Your task to perform on an android device: turn smart compose on in the gmail app Image 0: 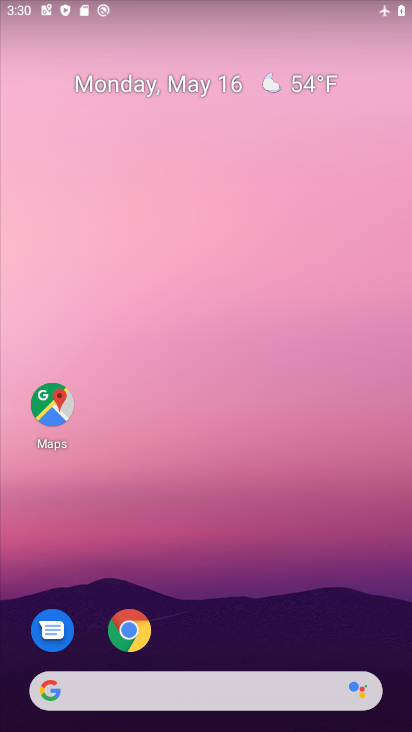
Step 0: drag from (222, 639) to (239, 156)
Your task to perform on an android device: turn smart compose on in the gmail app Image 1: 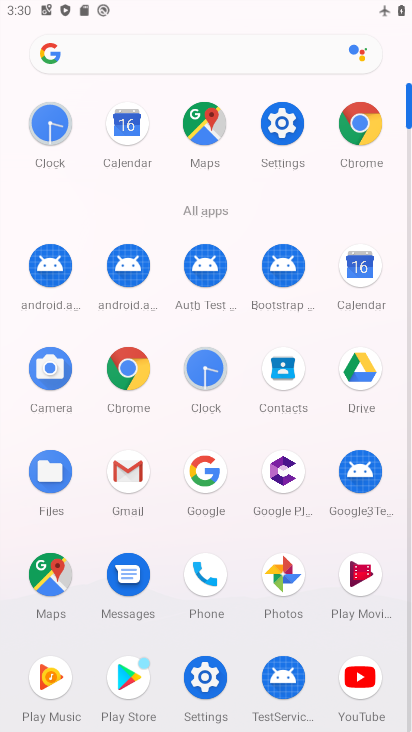
Step 1: click (131, 477)
Your task to perform on an android device: turn smart compose on in the gmail app Image 2: 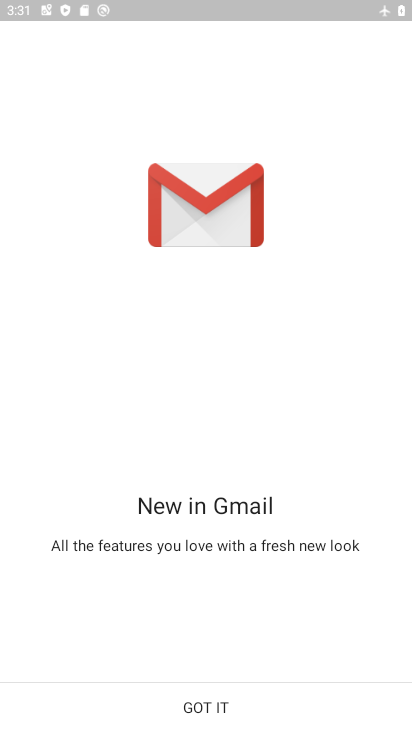
Step 2: click (199, 704)
Your task to perform on an android device: turn smart compose on in the gmail app Image 3: 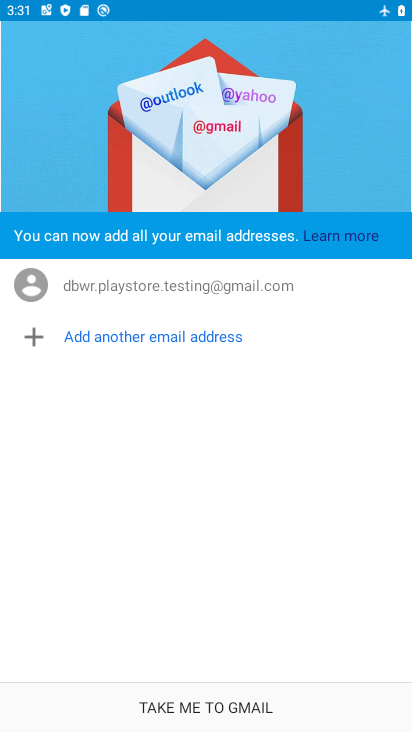
Step 3: click (199, 704)
Your task to perform on an android device: turn smart compose on in the gmail app Image 4: 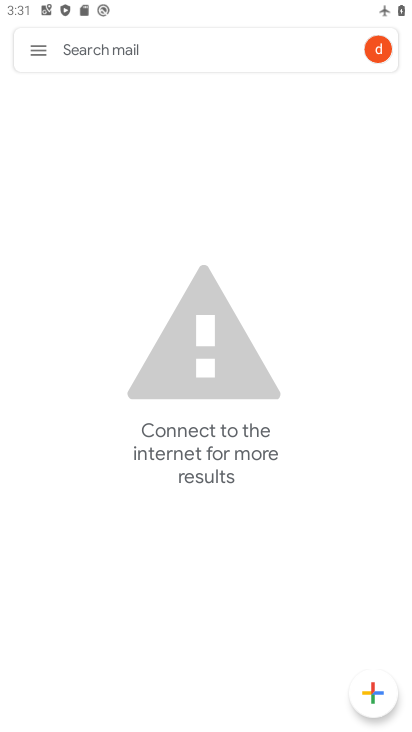
Step 4: click (44, 50)
Your task to perform on an android device: turn smart compose on in the gmail app Image 5: 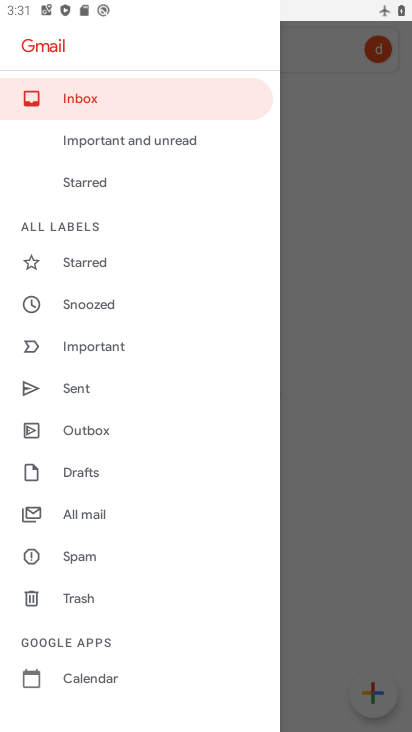
Step 5: drag from (113, 710) to (122, 232)
Your task to perform on an android device: turn smart compose on in the gmail app Image 6: 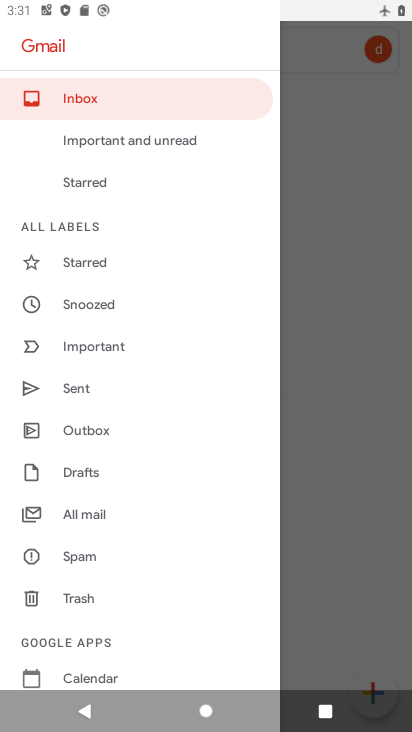
Step 6: drag from (101, 656) to (104, 186)
Your task to perform on an android device: turn smart compose on in the gmail app Image 7: 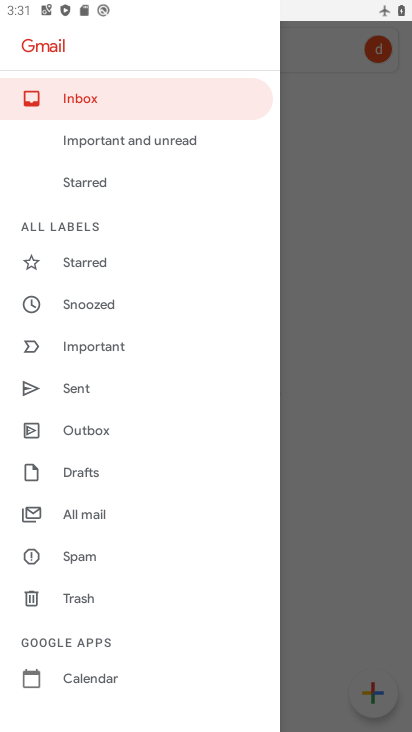
Step 7: drag from (46, 606) to (71, 114)
Your task to perform on an android device: turn smart compose on in the gmail app Image 8: 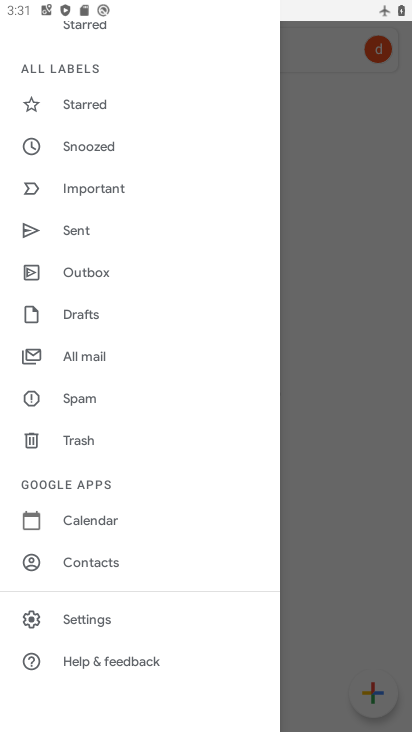
Step 8: click (75, 619)
Your task to perform on an android device: turn smart compose on in the gmail app Image 9: 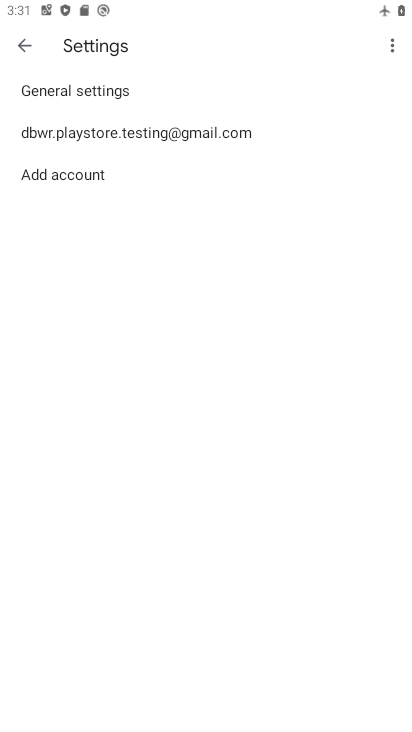
Step 9: click (162, 127)
Your task to perform on an android device: turn smart compose on in the gmail app Image 10: 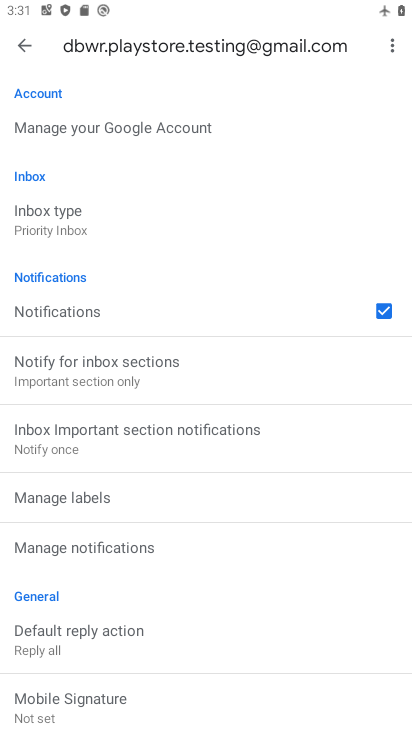
Step 10: task complete